Your task to perform on an android device: Go to internet settings Image 0: 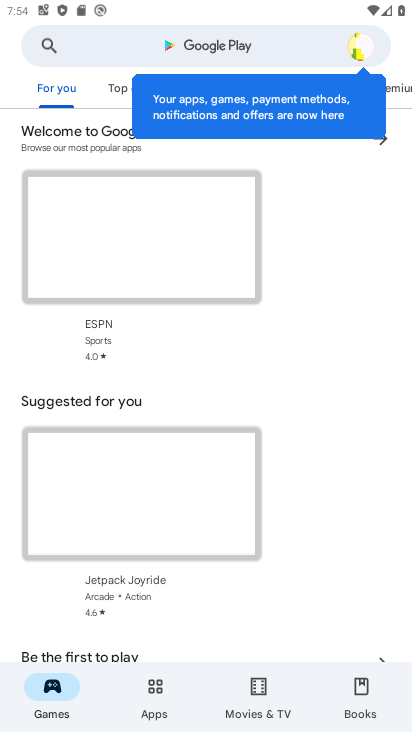
Step 0: press home button
Your task to perform on an android device: Go to internet settings Image 1: 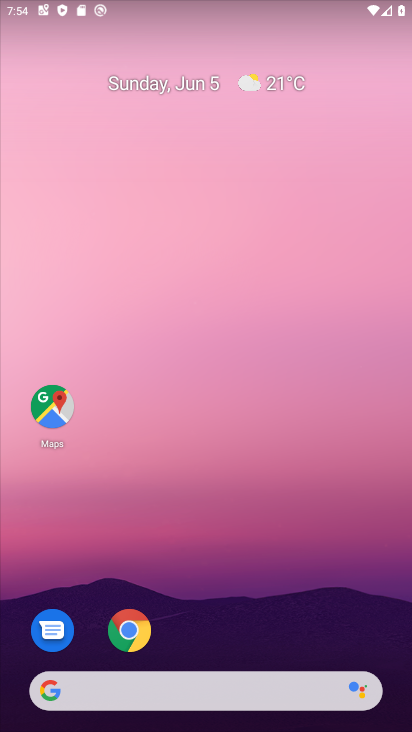
Step 1: drag from (292, 668) to (197, 23)
Your task to perform on an android device: Go to internet settings Image 2: 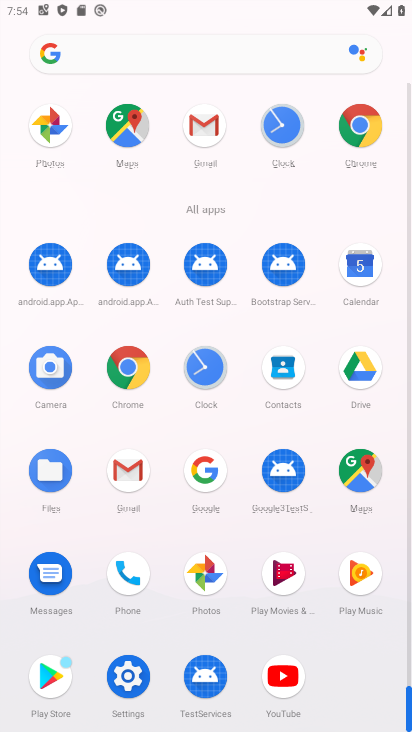
Step 2: drag from (252, 565) to (256, 119)
Your task to perform on an android device: Go to internet settings Image 3: 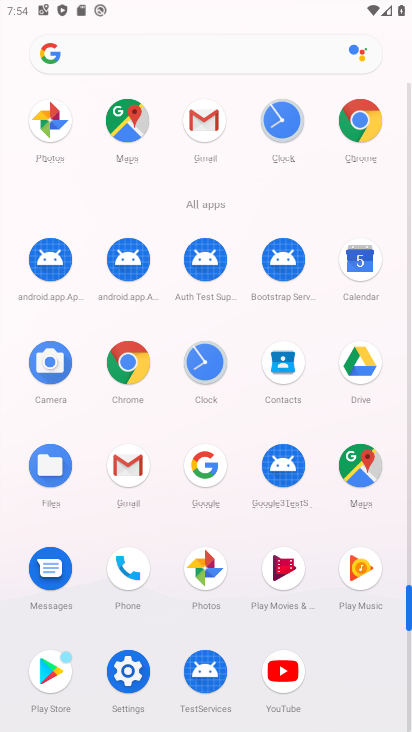
Step 3: click (137, 671)
Your task to perform on an android device: Go to internet settings Image 4: 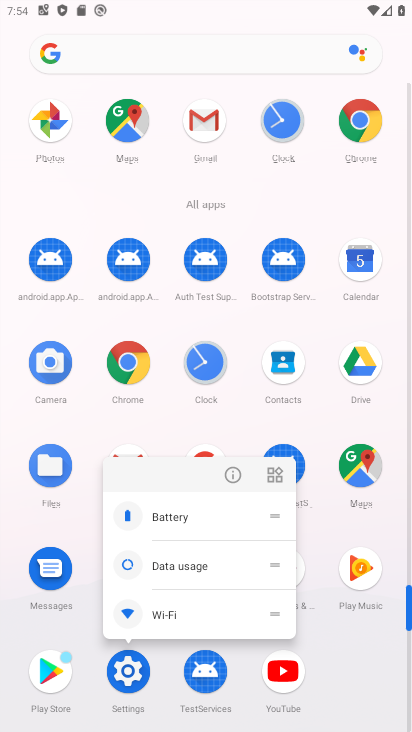
Step 4: click (137, 671)
Your task to perform on an android device: Go to internet settings Image 5: 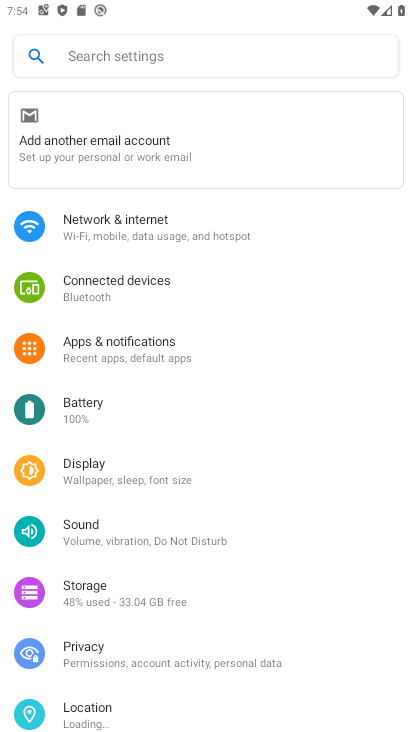
Step 5: click (90, 230)
Your task to perform on an android device: Go to internet settings Image 6: 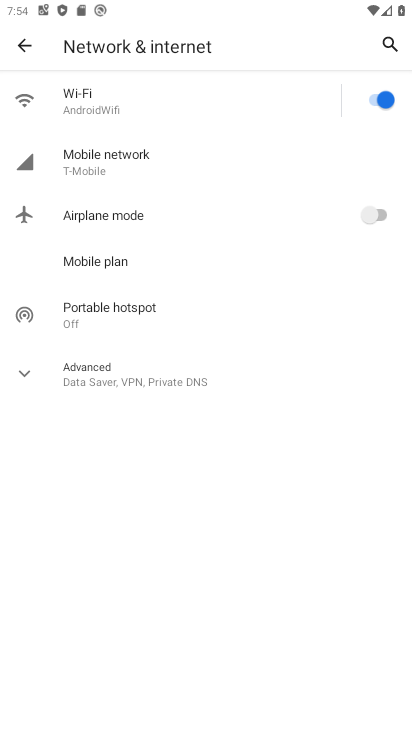
Step 6: task complete